Your task to perform on an android device: toggle notifications settings in the gmail app Image 0: 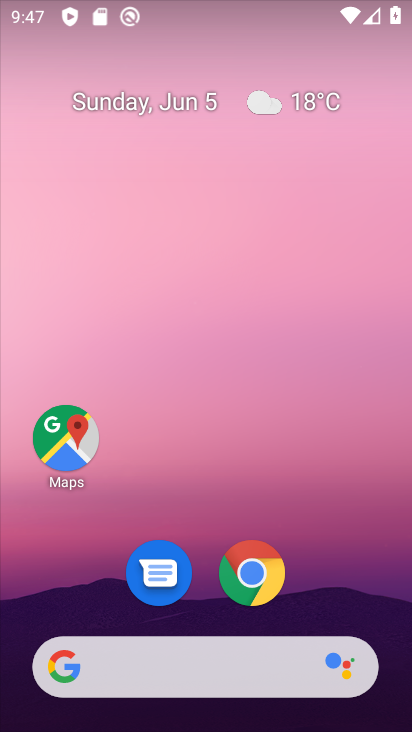
Step 0: drag from (284, 594) to (313, 261)
Your task to perform on an android device: toggle notifications settings in the gmail app Image 1: 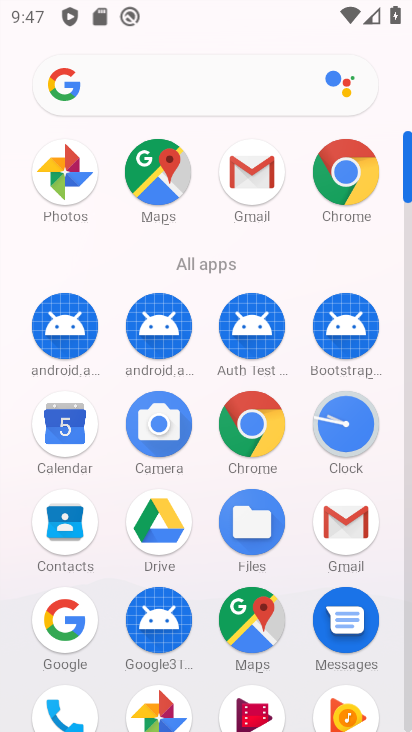
Step 1: click (261, 176)
Your task to perform on an android device: toggle notifications settings in the gmail app Image 2: 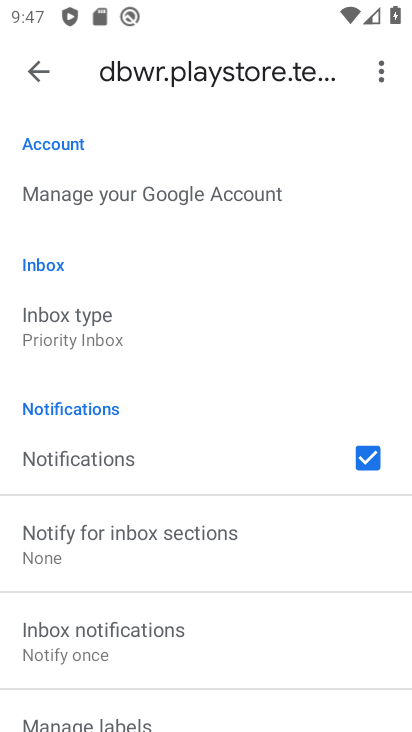
Step 2: click (48, 79)
Your task to perform on an android device: toggle notifications settings in the gmail app Image 3: 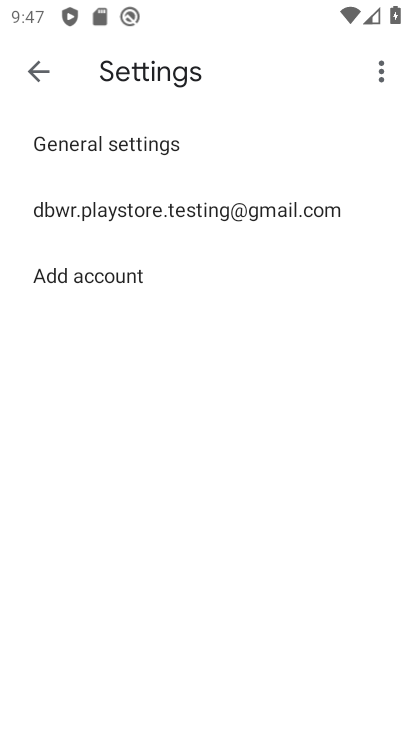
Step 3: click (92, 152)
Your task to perform on an android device: toggle notifications settings in the gmail app Image 4: 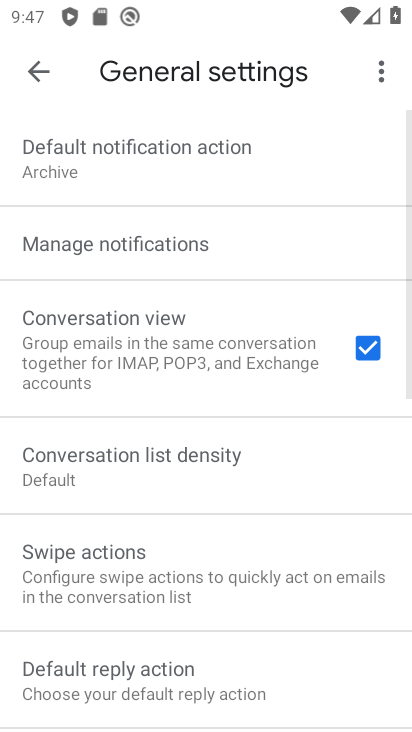
Step 4: click (124, 244)
Your task to perform on an android device: toggle notifications settings in the gmail app Image 5: 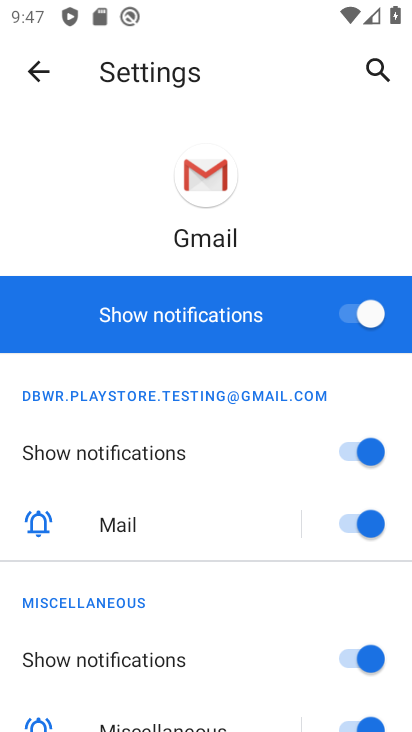
Step 5: click (342, 314)
Your task to perform on an android device: toggle notifications settings in the gmail app Image 6: 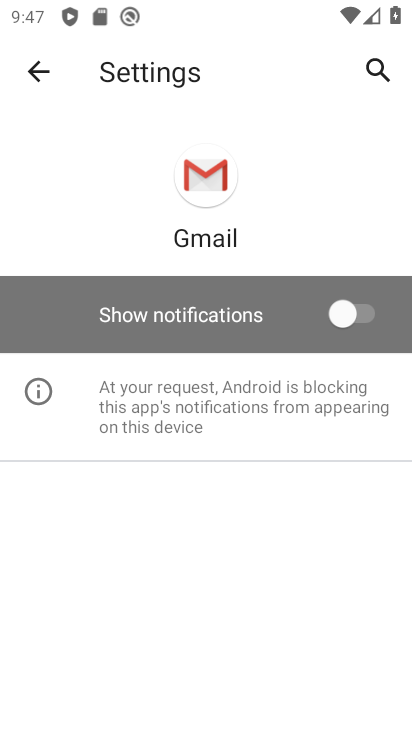
Step 6: task complete